Your task to perform on an android device: toggle show notifications on the lock screen Image 0: 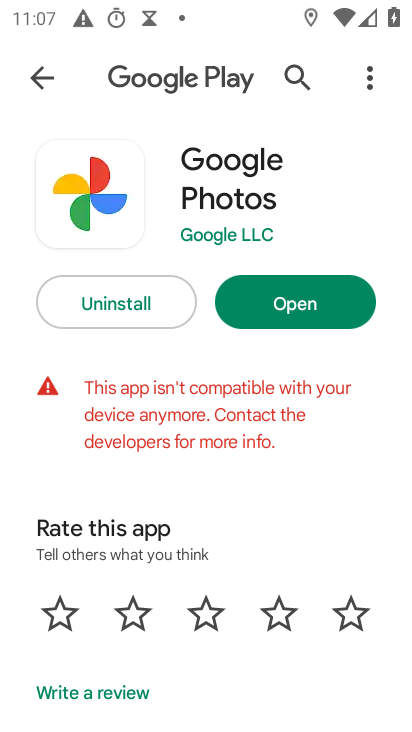
Step 0: press home button
Your task to perform on an android device: toggle show notifications on the lock screen Image 1: 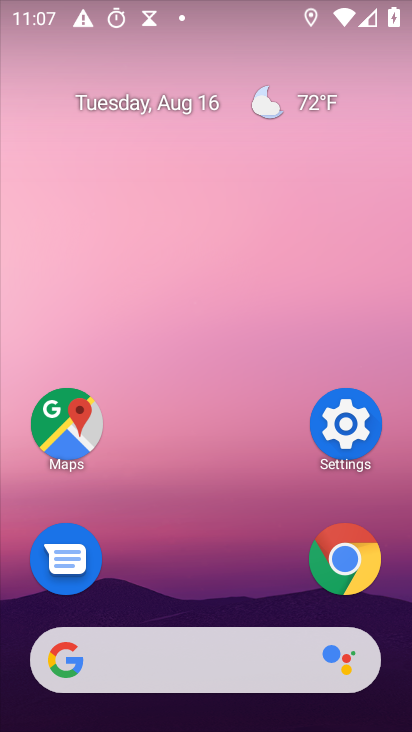
Step 1: click (331, 426)
Your task to perform on an android device: toggle show notifications on the lock screen Image 2: 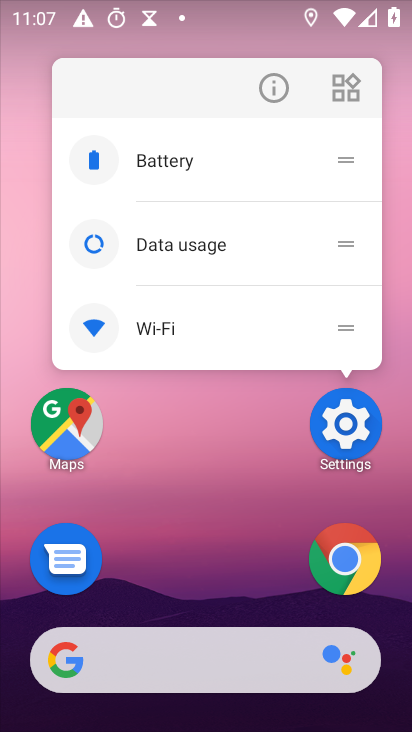
Step 2: click (340, 431)
Your task to perform on an android device: toggle show notifications on the lock screen Image 3: 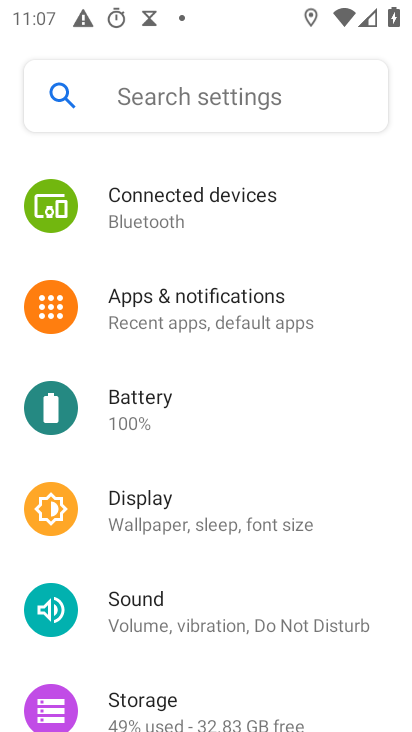
Step 3: click (200, 306)
Your task to perform on an android device: toggle show notifications on the lock screen Image 4: 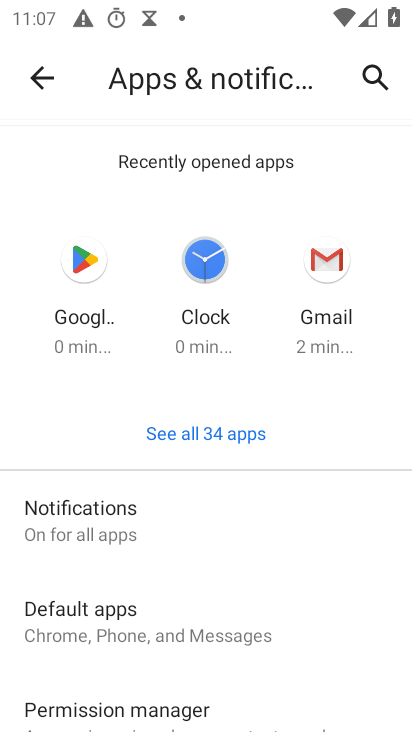
Step 4: click (91, 532)
Your task to perform on an android device: toggle show notifications on the lock screen Image 5: 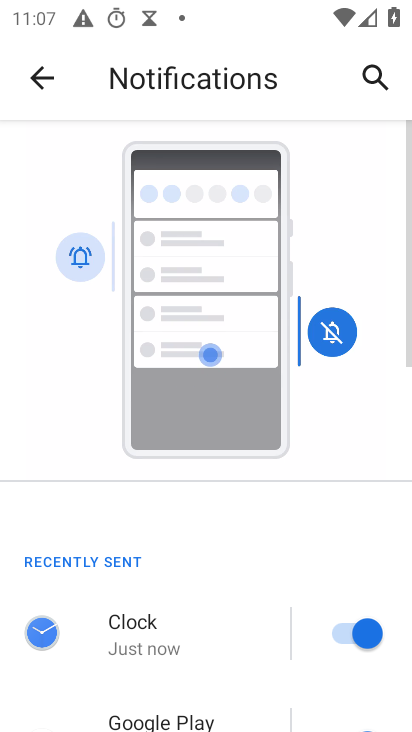
Step 5: drag from (253, 657) to (409, 167)
Your task to perform on an android device: toggle show notifications on the lock screen Image 6: 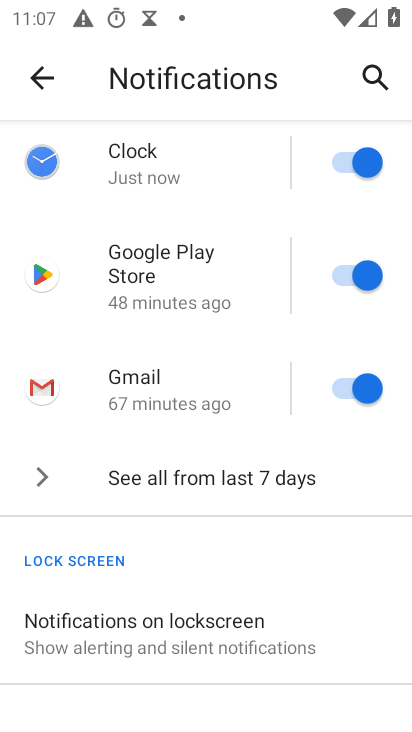
Step 6: click (179, 620)
Your task to perform on an android device: toggle show notifications on the lock screen Image 7: 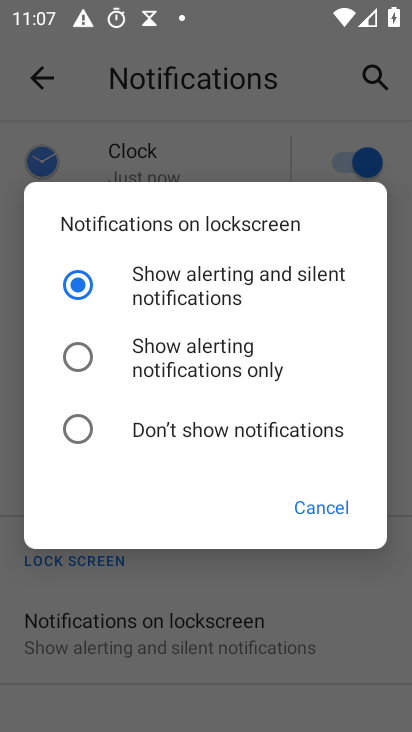
Step 7: click (81, 425)
Your task to perform on an android device: toggle show notifications on the lock screen Image 8: 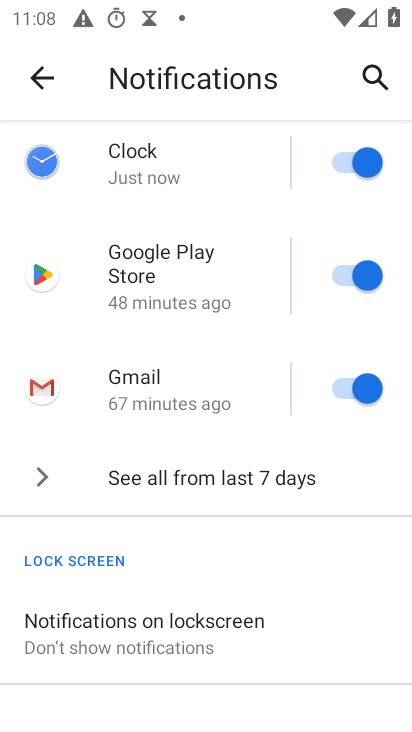
Step 8: task complete